Your task to perform on an android device: Go to Wikipedia Image 0: 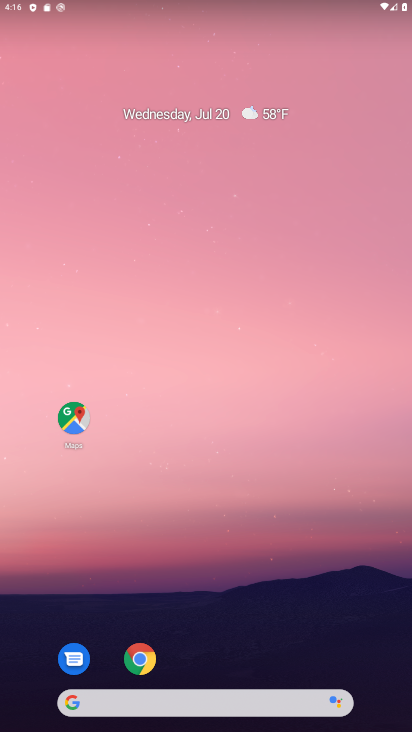
Step 0: drag from (216, 696) to (288, 59)
Your task to perform on an android device: Go to Wikipedia Image 1: 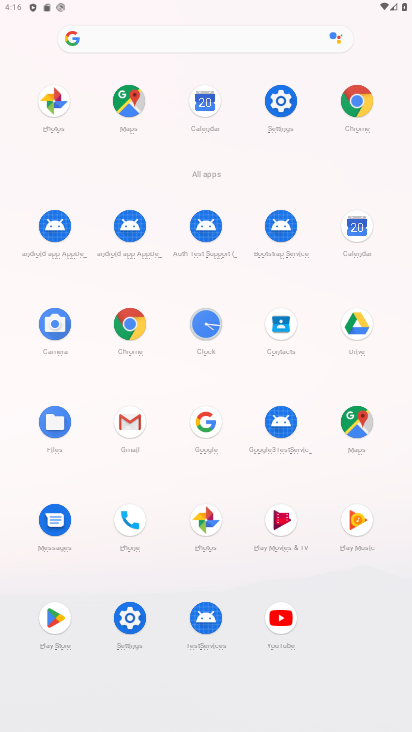
Step 1: click (129, 317)
Your task to perform on an android device: Go to Wikipedia Image 2: 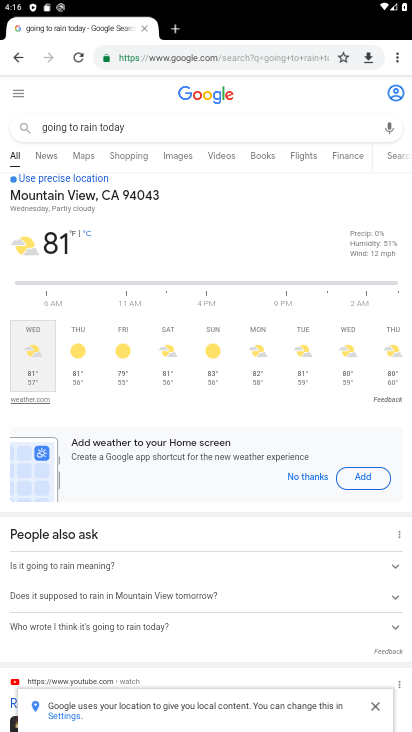
Step 2: click (191, 50)
Your task to perform on an android device: Go to Wikipedia Image 3: 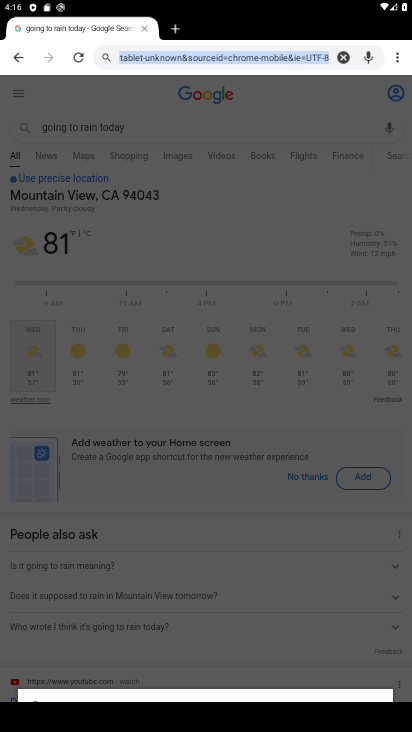
Step 3: type "wikipedia"
Your task to perform on an android device: Go to Wikipedia Image 4: 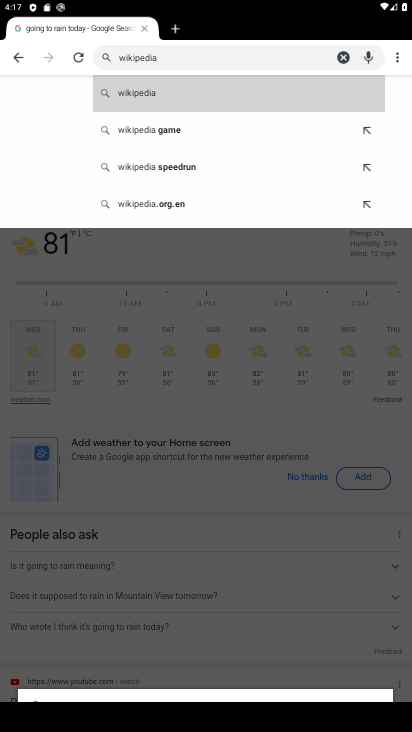
Step 4: click (185, 81)
Your task to perform on an android device: Go to Wikipedia Image 5: 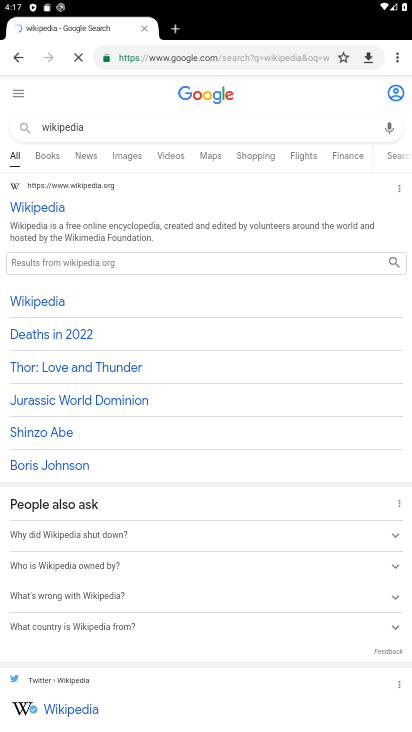
Step 5: task complete